Your task to perform on an android device: turn on notifications settings in the gmail app Image 0: 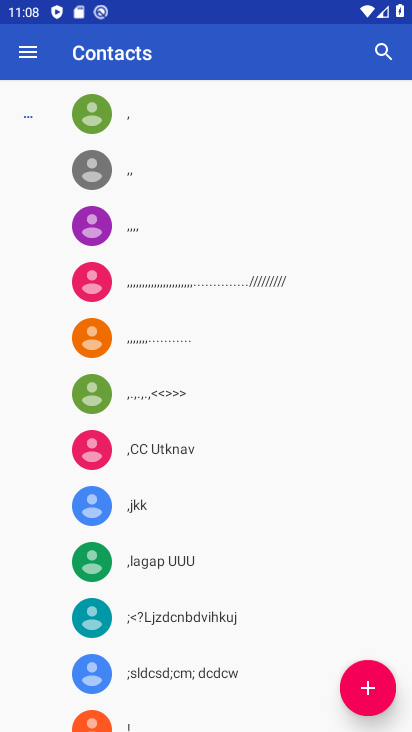
Step 0: press home button
Your task to perform on an android device: turn on notifications settings in the gmail app Image 1: 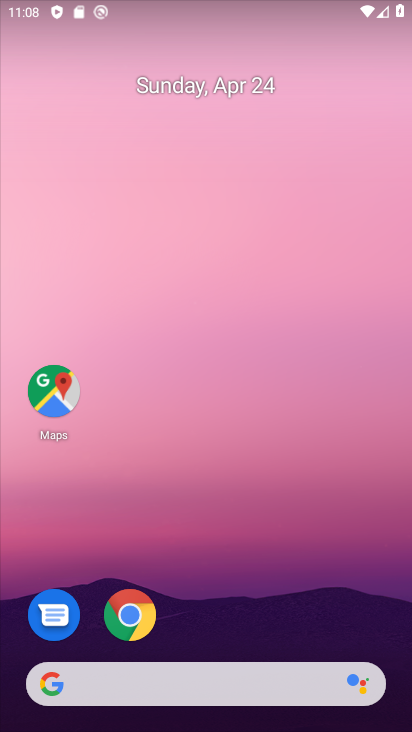
Step 1: drag from (267, 609) to (300, 23)
Your task to perform on an android device: turn on notifications settings in the gmail app Image 2: 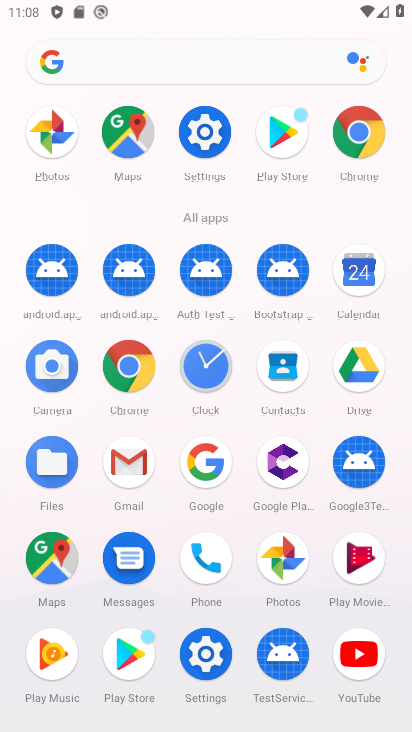
Step 2: click (139, 456)
Your task to perform on an android device: turn on notifications settings in the gmail app Image 3: 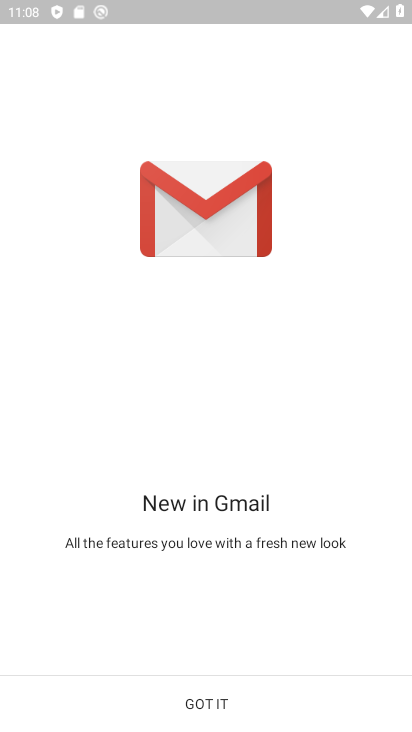
Step 3: click (220, 707)
Your task to perform on an android device: turn on notifications settings in the gmail app Image 4: 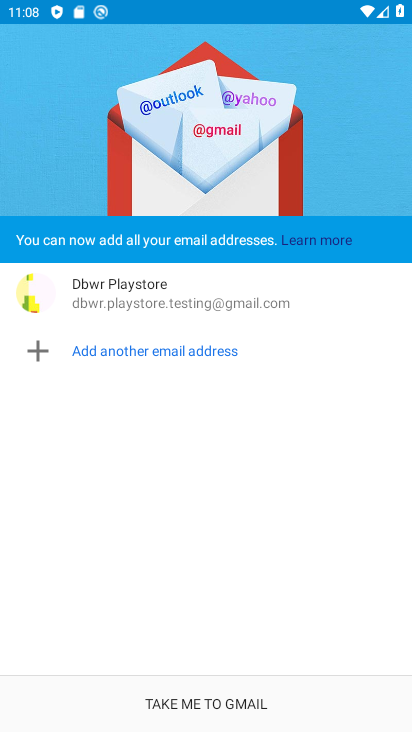
Step 4: click (220, 707)
Your task to perform on an android device: turn on notifications settings in the gmail app Image 5: 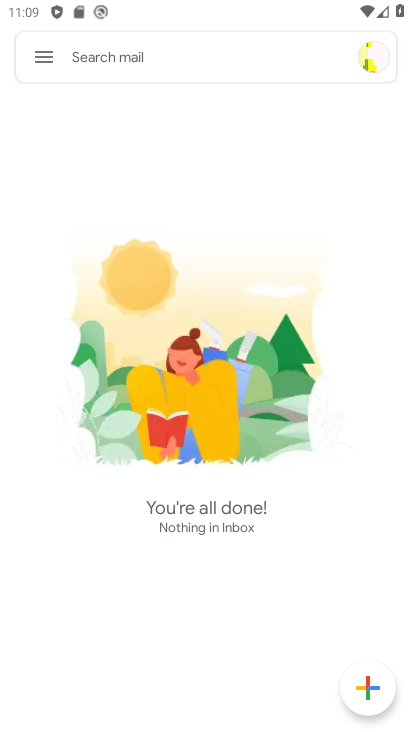
Step 5: click (45, 56)
Your task to perform on an android device: turn on notifications settings in the gmail app Image 6: 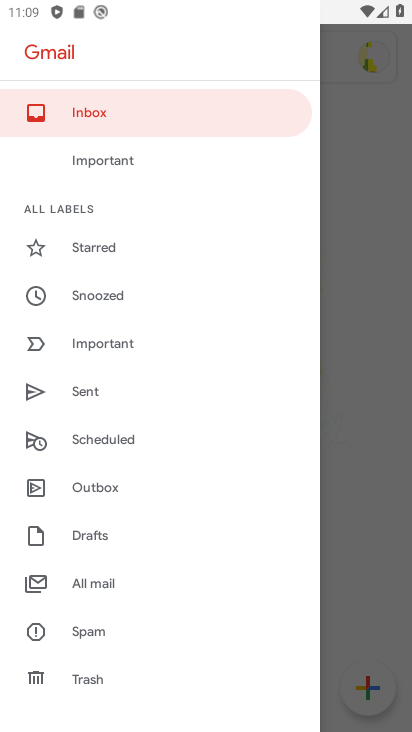
Step 6: drag from (125, 534) to (156, 185)
Your task to perform on an android device: turn on notifications settings in the gmail app Image 7: 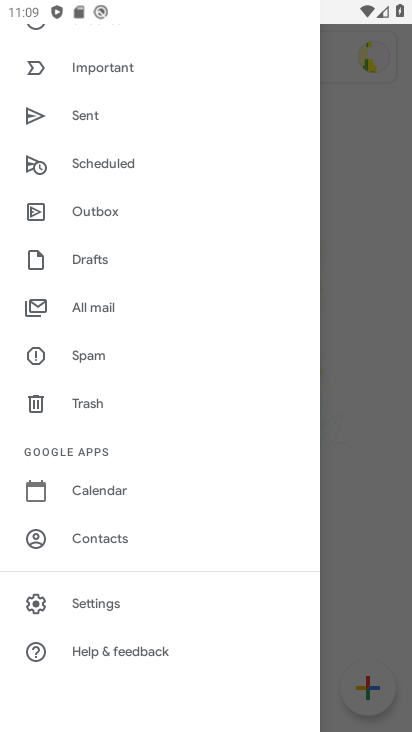
Step 7: click (131, 609)
Your task to perform on an android device: turn on notifications settings in the gmail app Image 8: 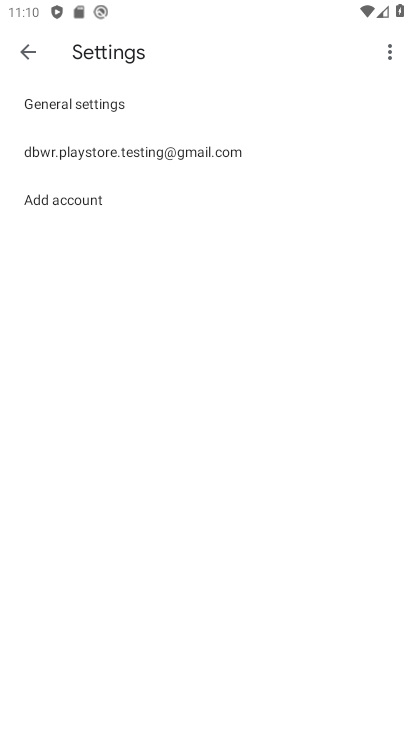
Step 8: click (124, 113)
Your task to perform on an android device: turn on notifications settings in the gmail app Image 9: 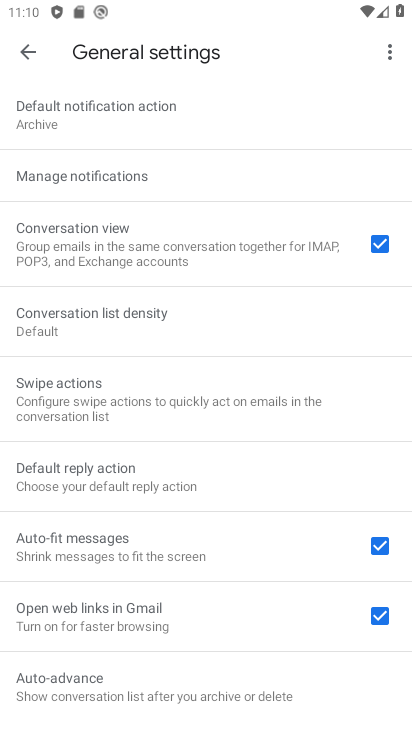
Step 9: click (145, 194)
Your task to perform on an android device: turn on notifications settings in the gmail app Image 10: 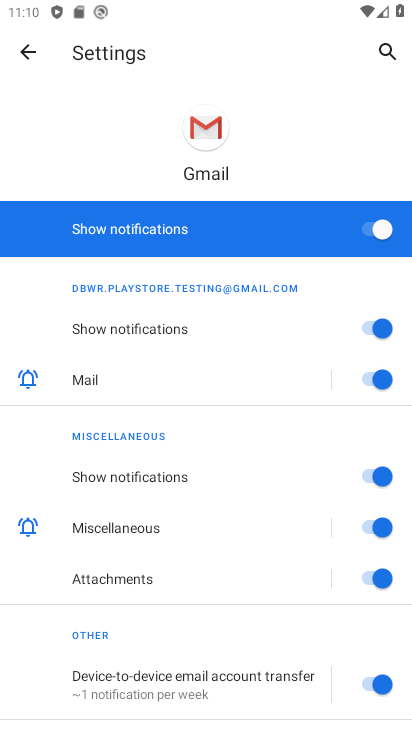
Step 10: click (357, 233)
Your task to perform on an android device: turn on notifications settings in the gmail app Image 11: 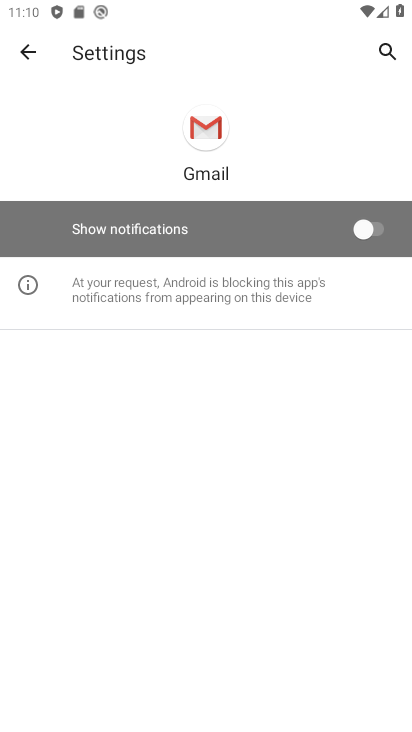
Step 11: task complete